Your task to perform on an android device: Open Chrome and go to settings Image 0: 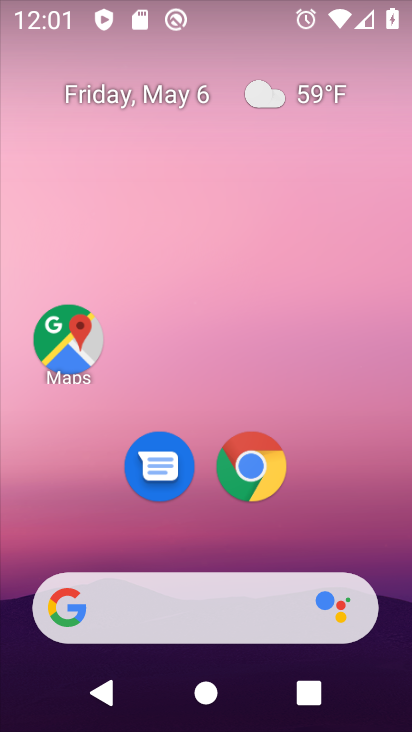
Step 0: click (248, 464)
Your task to perform on an android device: Open Chrome and go to settings Image 1: 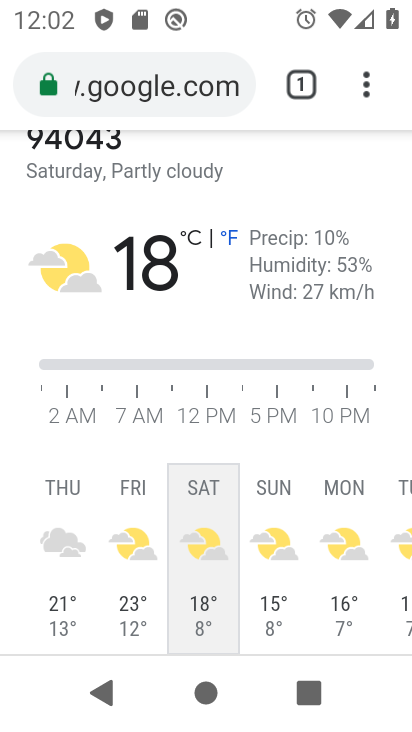
Step 1: click (369, 79)
Your task to perform on an android device: Open Chrome and go to settings Image 2: 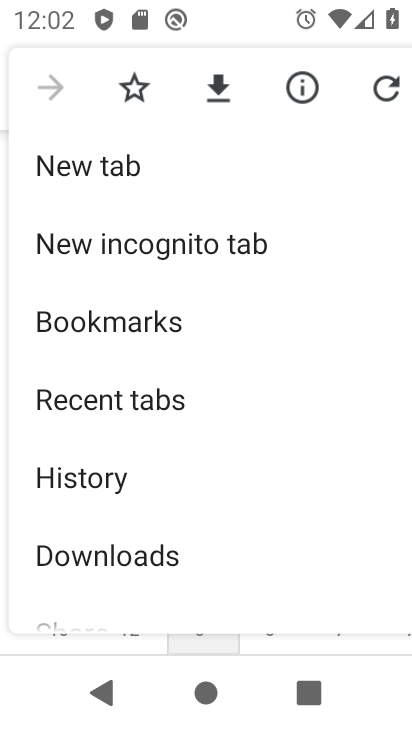
Step 2: drag from (148, 603) to (222, 183)
Your task to perform on an android device: Open Chrome and go to settings Image 3: 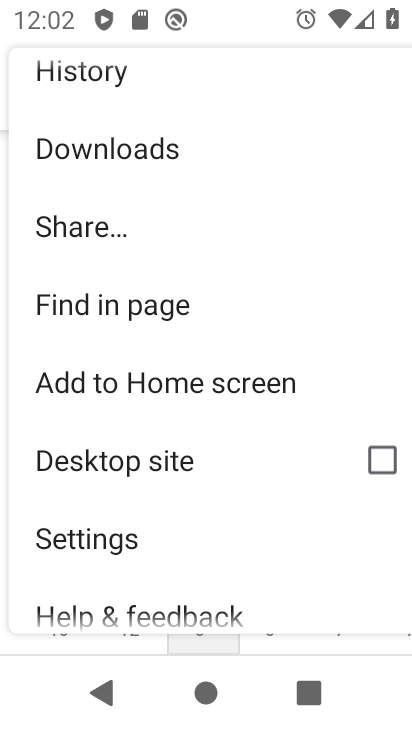
Step 3: click (113, 556)
Your task to perform on an android device: Open Chrome and go to settings Image 4: 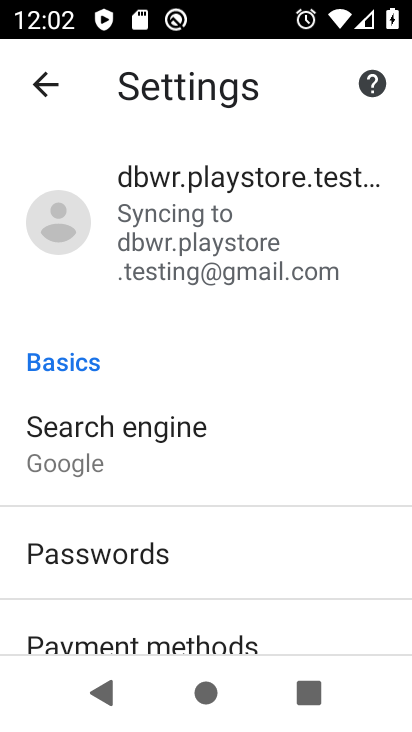
Step 4: task complete